Your task to perform on an android device: Open Wikipedia Image 0: 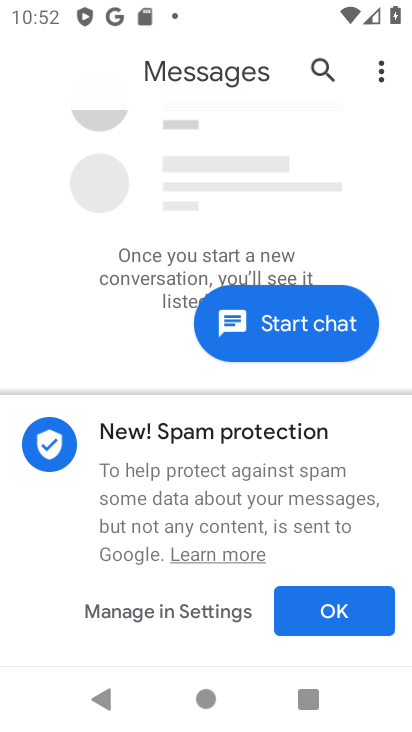
Step 0: press home button
Your task to perform on an android device: Open Wikipedia Image 1: 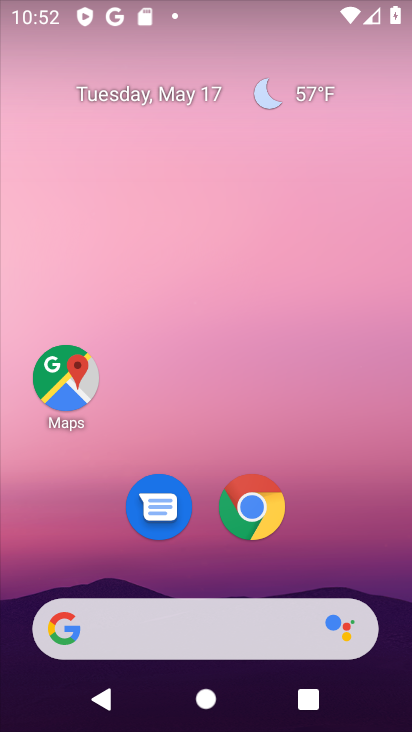
Step 1: click (241, 511)
Your task to perform on an android device: Open Wikipedia Image 2: 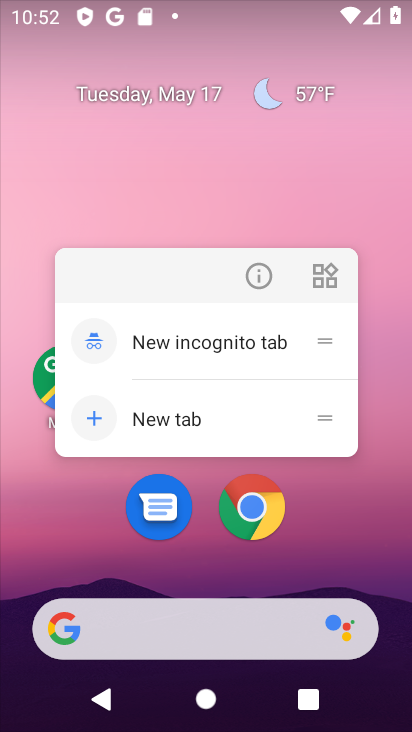
Step 2: click (248, 509)
Your task to perform on an android device: Open Wikipedia Image 3: 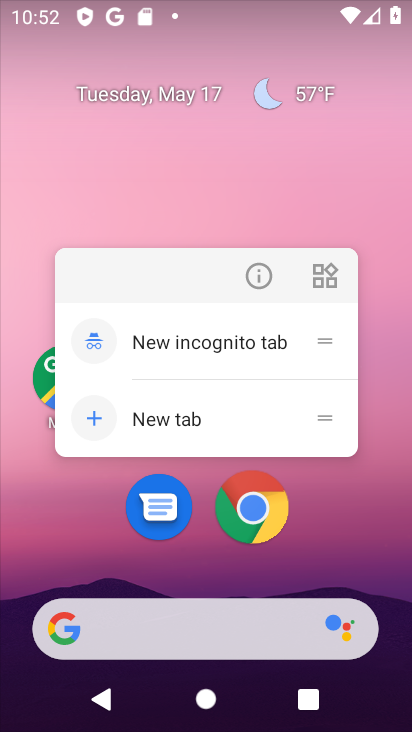
Step 3: click (273, 512)
Your task to perform on an android device: Open Wikipedia Image 4: 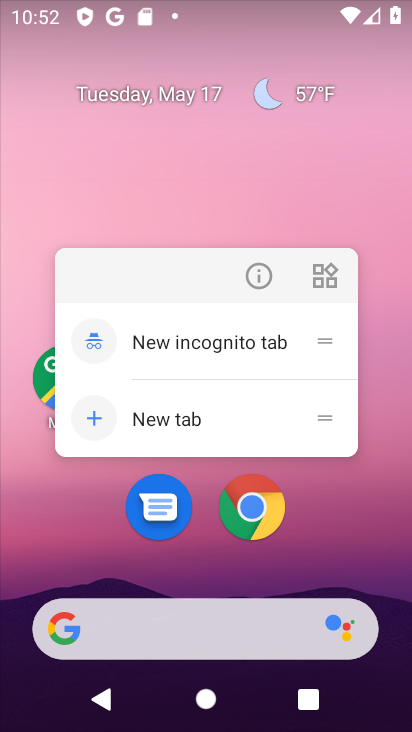
Step 4: click (250, 520)
Your task to perform on an android device: Open Wikipedia Image 5: 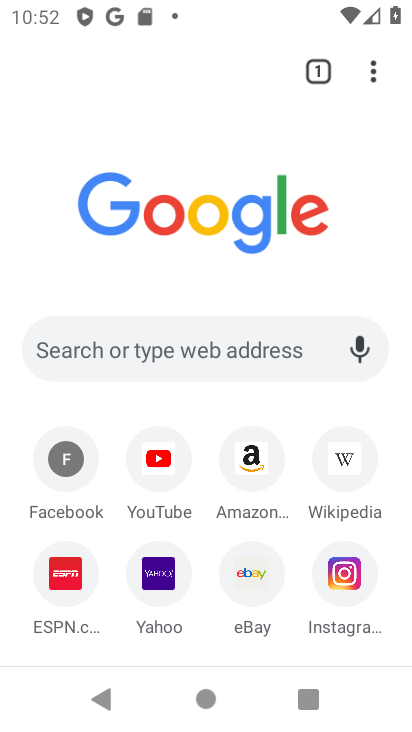
Step 5: click (344, 479)
Your task to perform on an android device: Open Wikipedia Image 6: 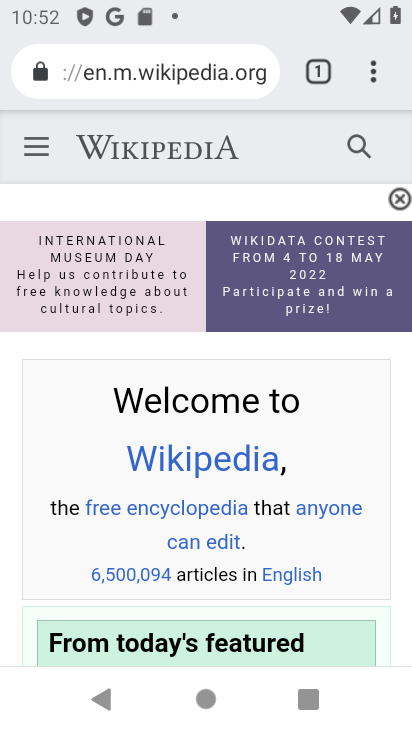
Step 6: task complete